Your task to perform on an android device: Go to wifi settings Image 0: 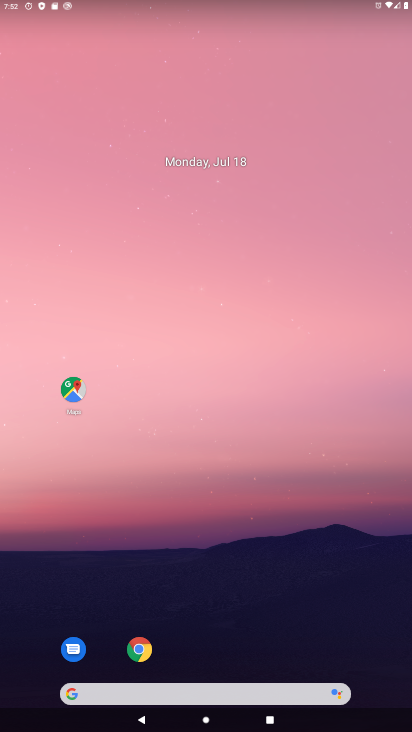
Step 0: drag from (361, 584) to (270, 32)
Your task to perform on an android device: Go to wifi settings Image 1: 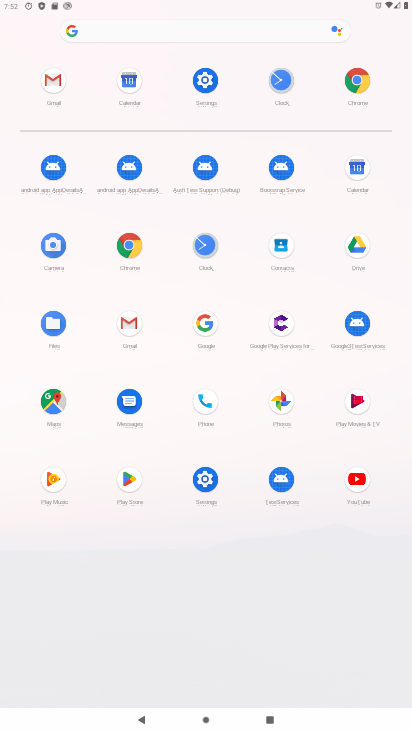
Step 1: click (212, 79)
Your task to perform on an android device: Go to wifi settings Image 2: 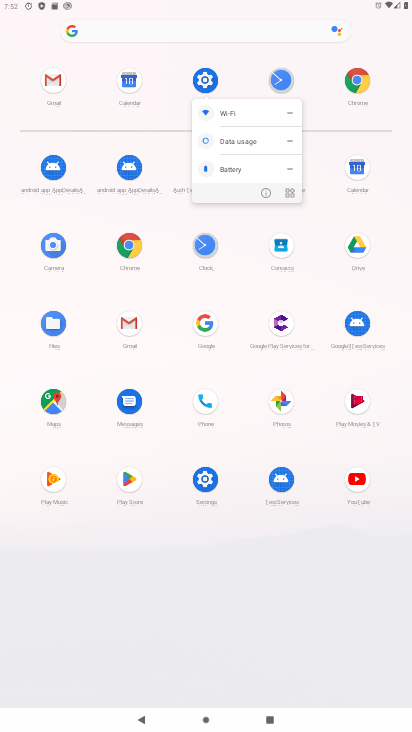
Step 2: click (207, 79)
Your task to perform on an android device: Go to wifi settings Image 3: 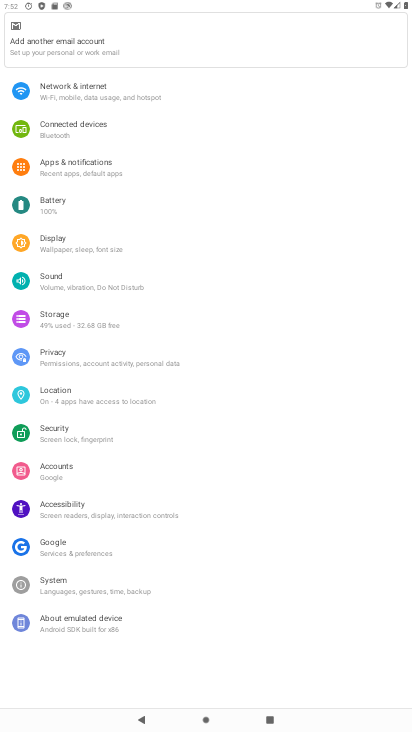
Step 3: click (104, 92)
Your task to perform on an android device: Go to wifi settings Image 4: 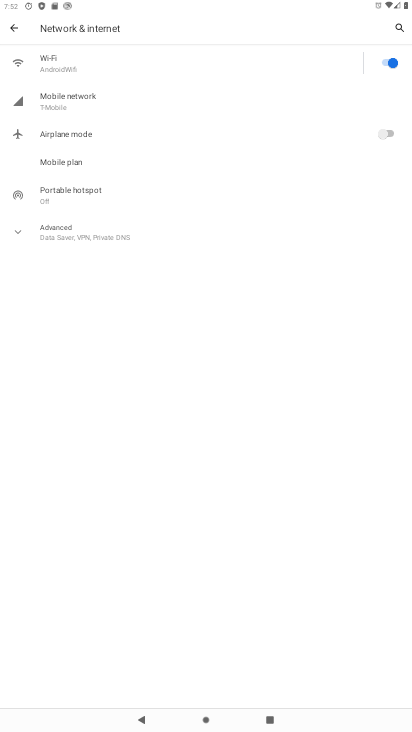
Step 4: click (118, 58)
Your task to perform on an android device: Go to wifi settings Image 5: 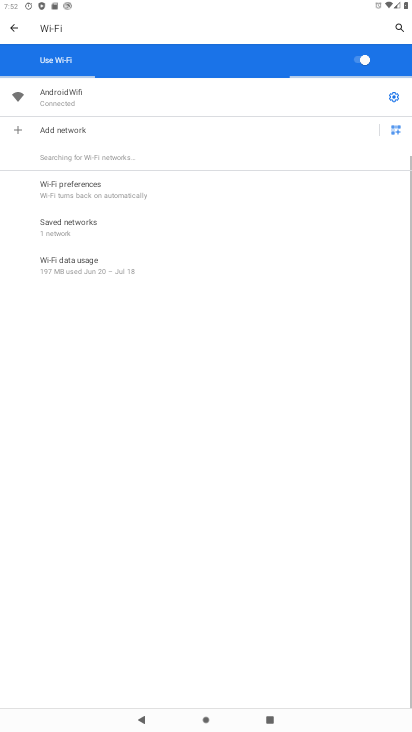
Step 5: click (397, 96)
Your task to perform on an android device: Go to wifi settings Image 6: 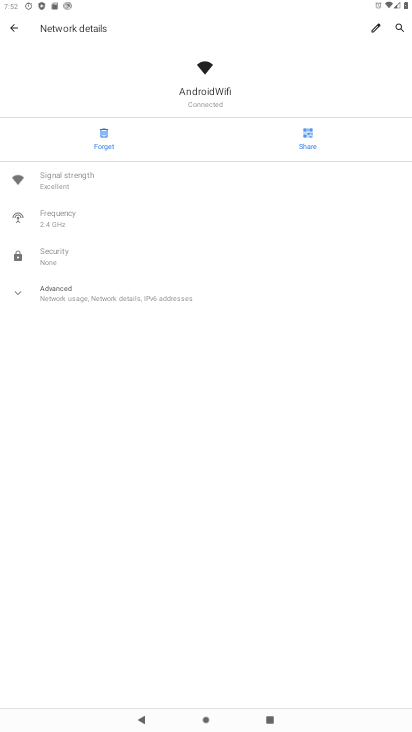
Step 6: task complete